Your task to perform on an android device: open a bookmark in the chrome app Image 0: 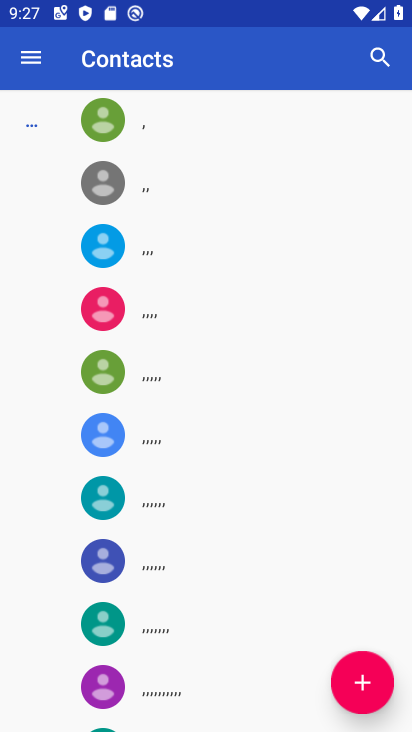
Step 0: press home button
Your task to perform on an android device: open a bookmark in the chrome app Image 1: 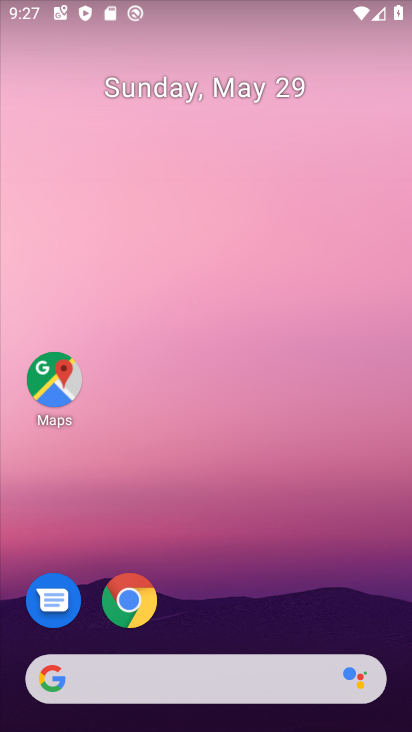
Step 1: click (124, 594)
Your task to perform on an android device: open a bookmark in the chrome app Image 2: 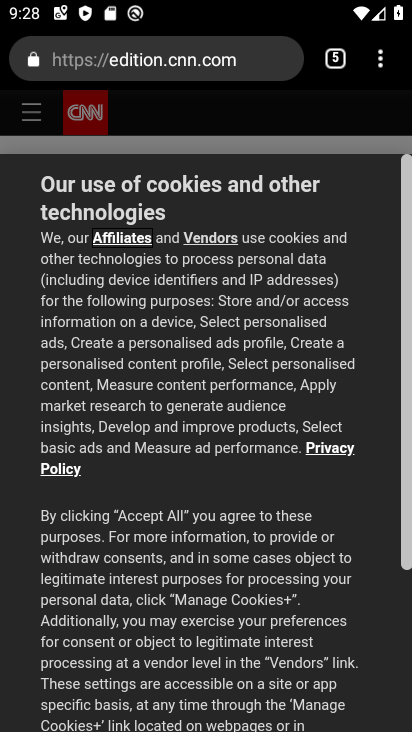
Step 2: click (381, 67)
Your task to perform on an android device: open a bookmark in the chrome app Image 3: 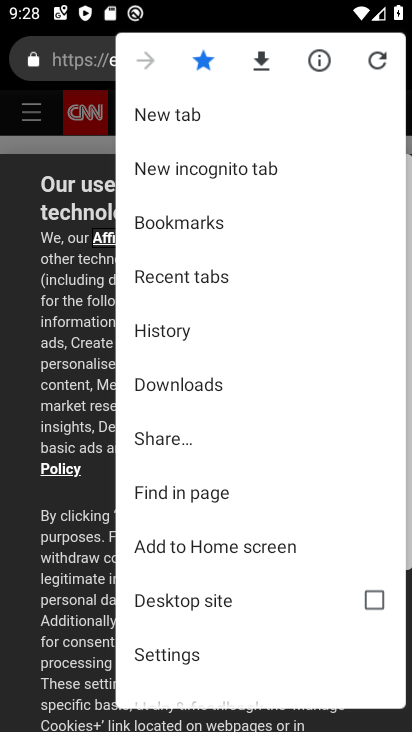
Step 3: click (184, 222)
Your task to perform on an android device: open a bookmark in the chrome app Image 4: 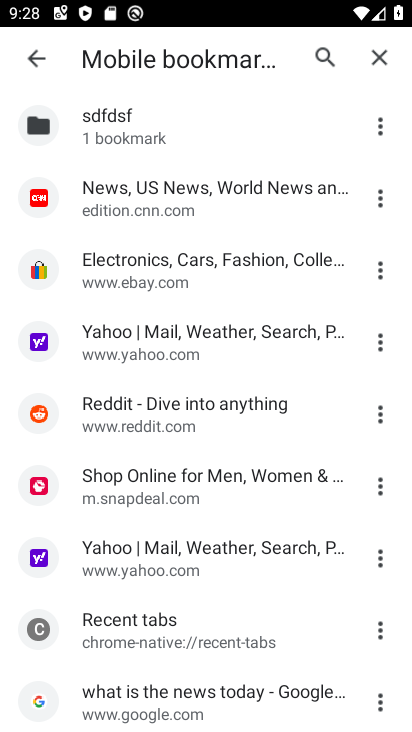
Step 4: click (167, 192)
Your task to perform on an android device: open a bookmark in the chrome app Image 5: 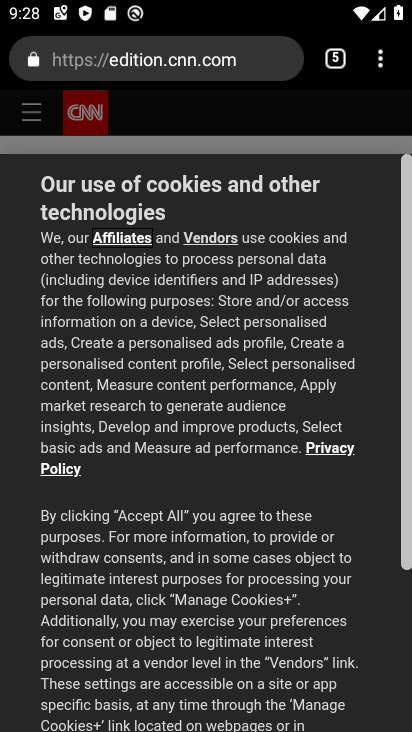
Step 5: task complete